Your task to perform on an android device: Go to network settings Image 0: 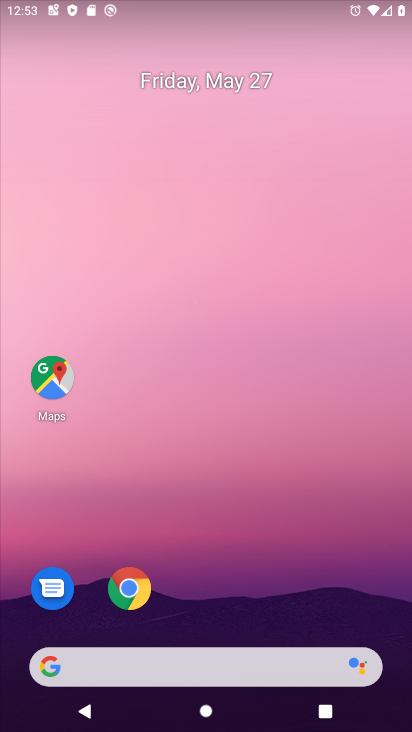
Step 0: press home button
Your task to perform on an android device: Go to network settings Image 1: 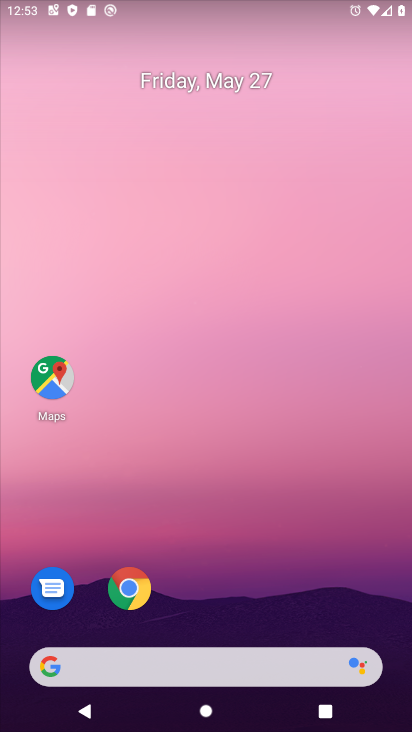
Step 1: drag from (209, 631) to (224, 45)
Your task to perform on an android device: Go to network settings Image 2: 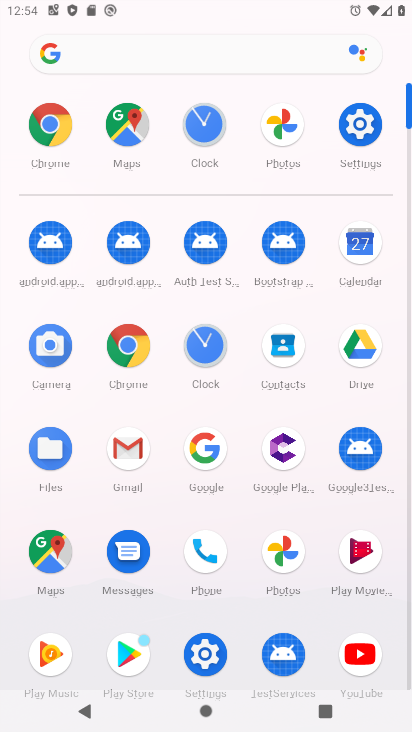
Step 2: click (359, 118)
Your task to perform on an android device: Go to network settings Image 3: 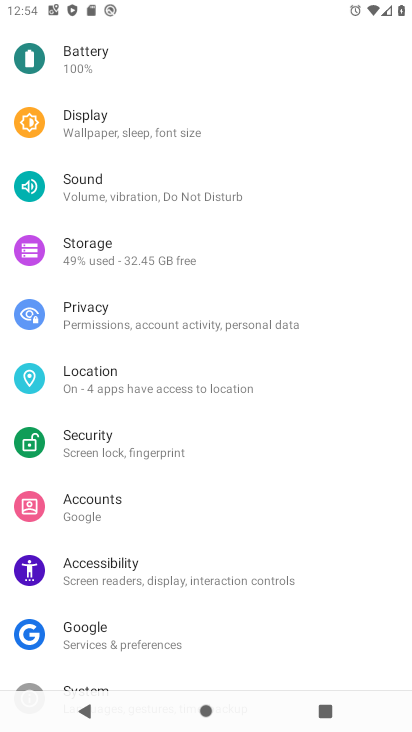
Step 3: drag from (187, 138) to (259, 720)
Your task to perform on an android device: Go to network settings Image 4: 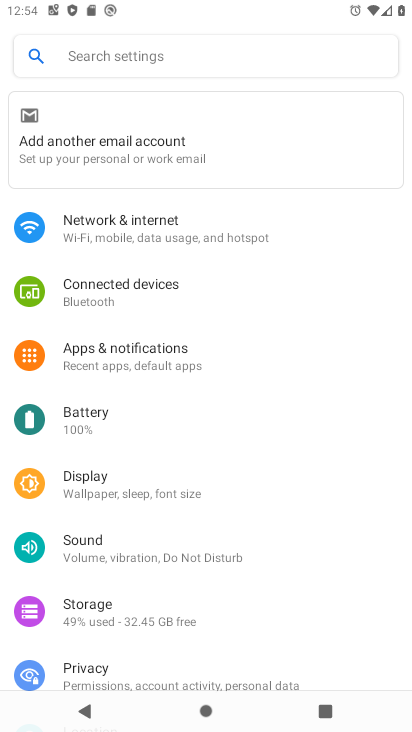
Step 4: drag from (171, 121) to (200, 619)
Your task to perform on an android device: Go to network settings Image 5: 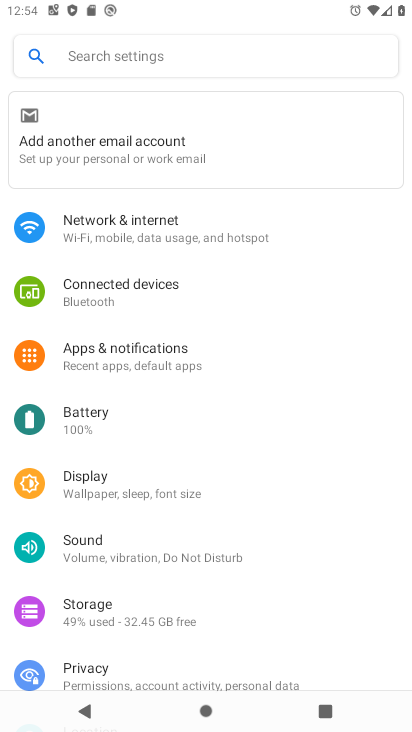
Step 5: click (132, 226)
Your task to perform on an android device: Go to network settings Image 6: 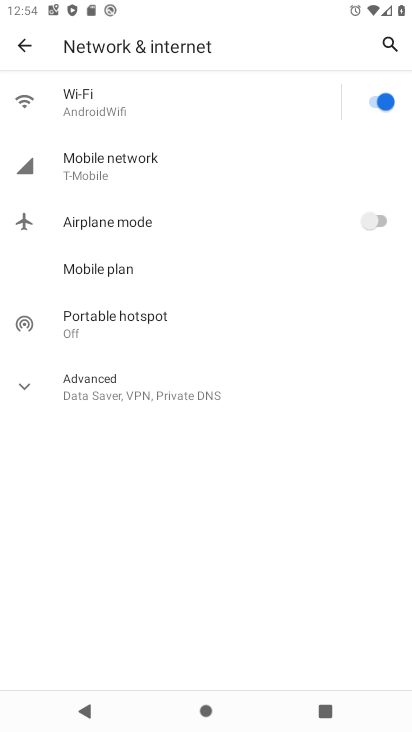
Step 6: click (31, 380)
Your task to perform on an android device: Go to network settings Image 7: 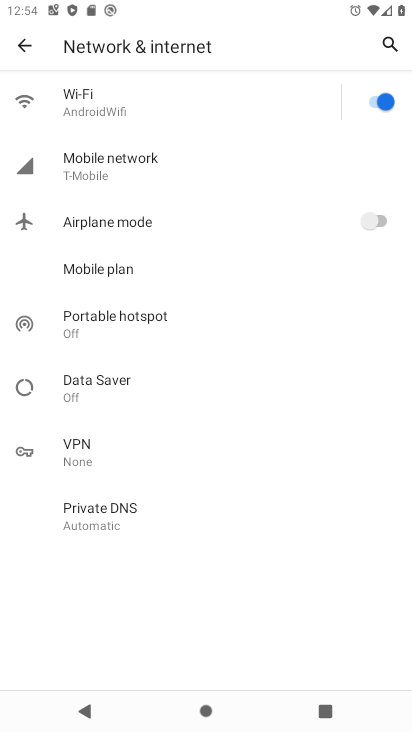
Step 7: task complete